Your task to perform on an android device: empty trash in google photos Image 0: 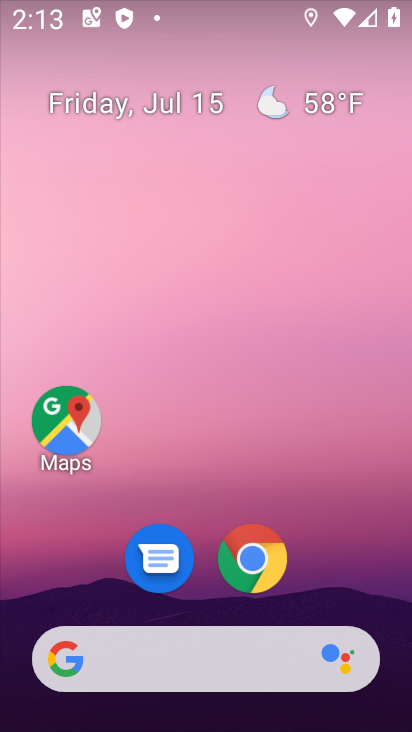
Step 0: drag from (373, 588) to (376, 195)
Your task to perform on an android device: empty trash in google photos Image 1: 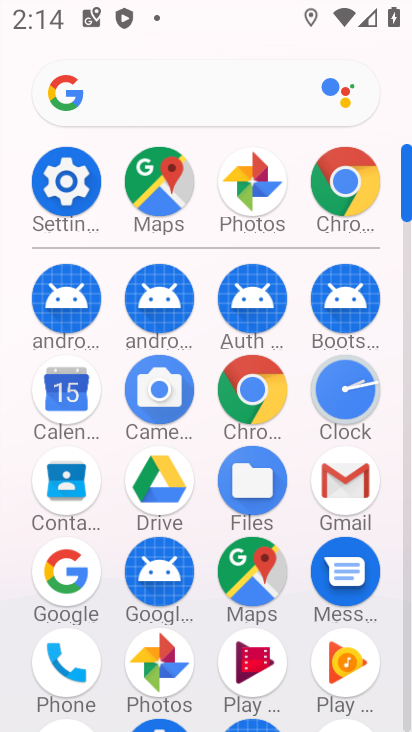
Step 1: click (264, 185)
Your task to perform on an android device: empty trash in google photos Image 2: 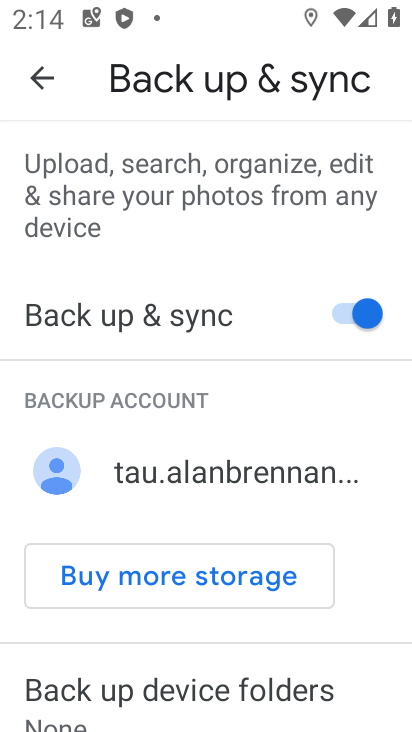
Step 2: press back button
Your task to perform on an android device: empty trash in google photos Image 3: 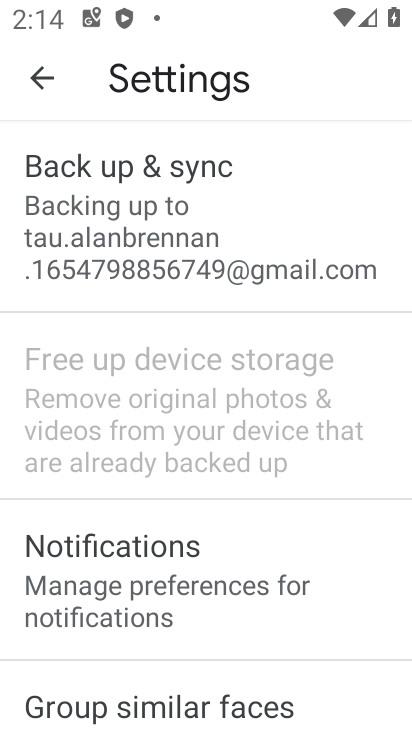
Step 3: press back button
Your task to perform on an android device: empty trash in google photos Image 4: 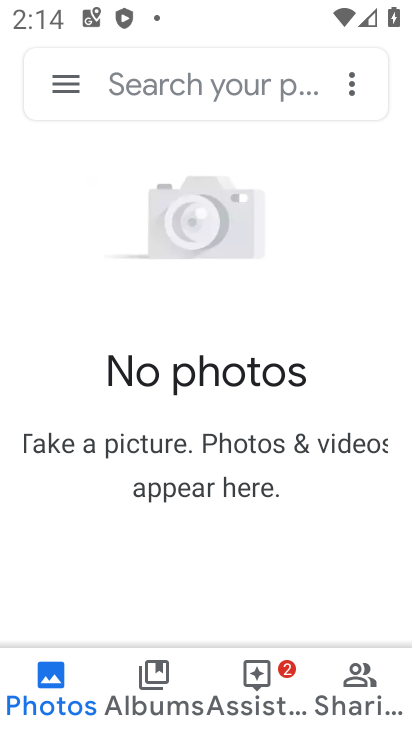
Step 4: click (73, 74)
Your task to perform on an android device: empty trash in google photos Image 5: 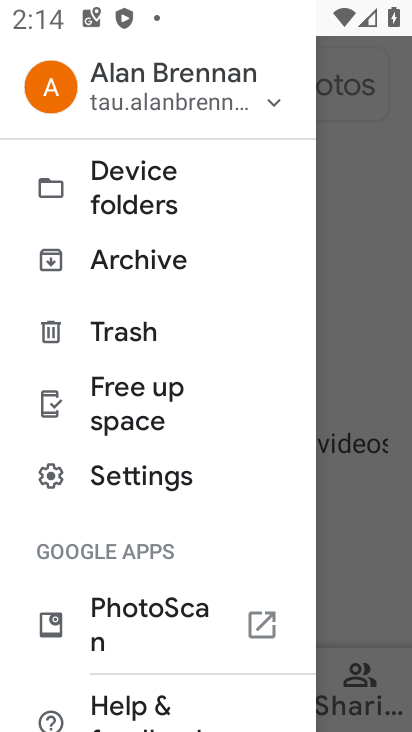
Step 5: click (111, 342)
Your task to perform on an android device: empty trash in google photos Image 6: 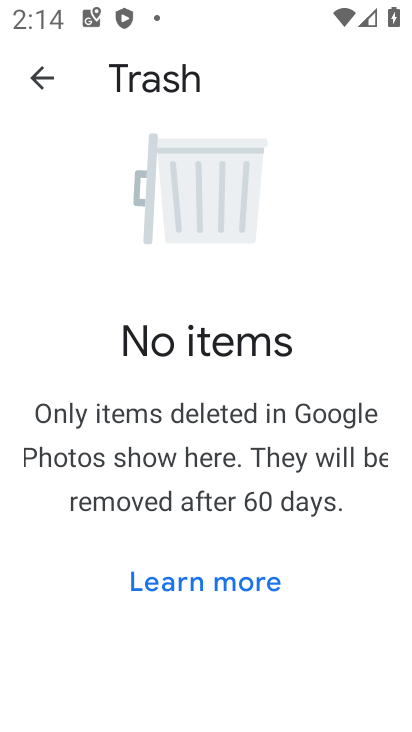
Step 6: task complete